Your task to perform on an android device: What's the weather going to be tomorrow? Image 0: 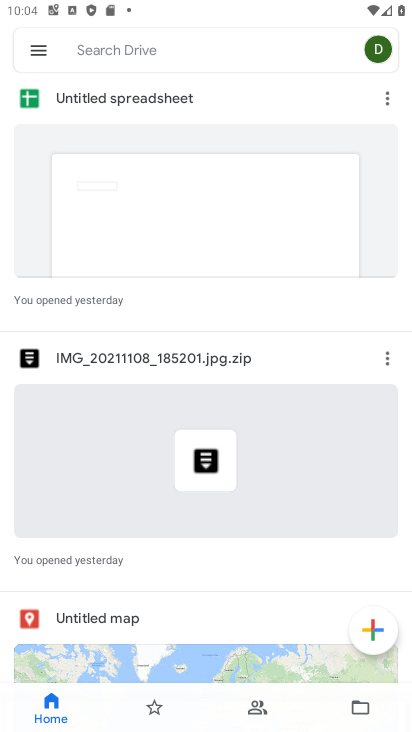
Step 0: press home button
Your task to perform on an android device: What's the weather going to be tomorrow? Image 1: 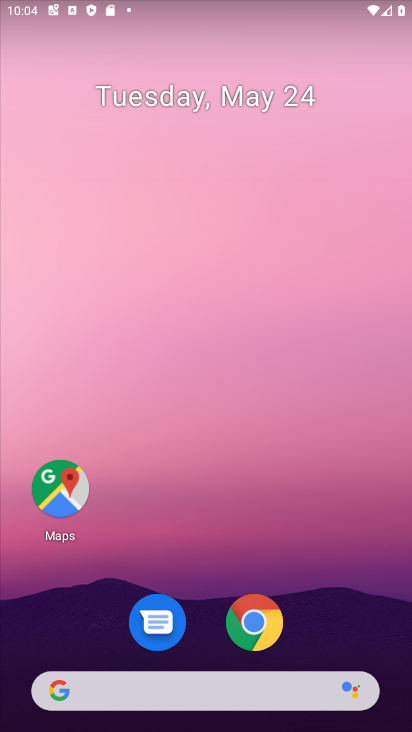
Step 1: drag from (283, 697) to (295, 137)
Your task to perform on an android device: What's the weather going to be tomorrow? Image 2: 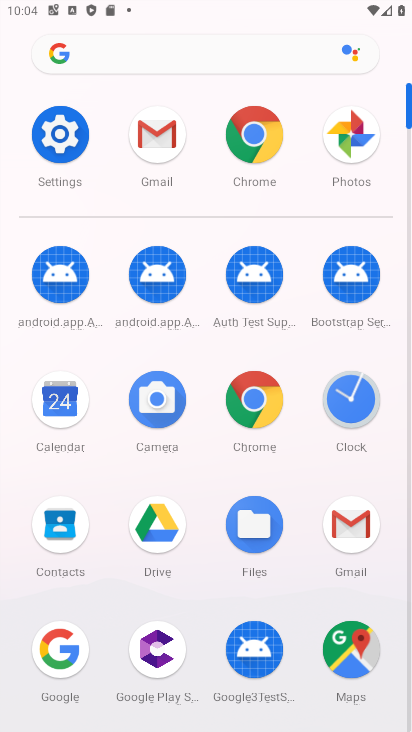
Step 2: click (176, 52)
Your task to perform on an android device: What's the weather going to be tomorrow? Image 3: 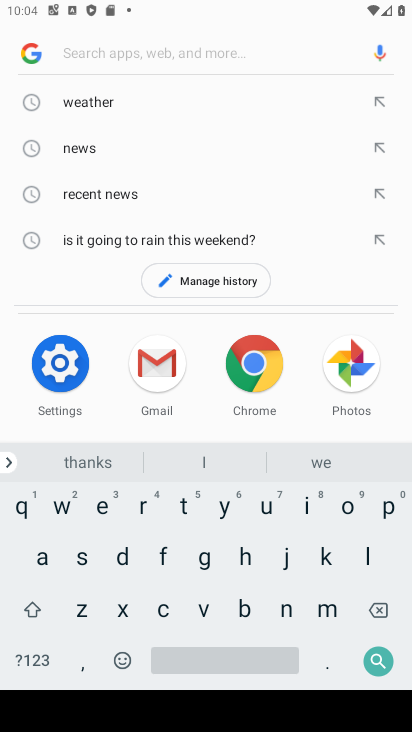
Step 3: click (127, 97)
Your task to perform on an android device: What's the weather going to be tomorrow? Image 4: 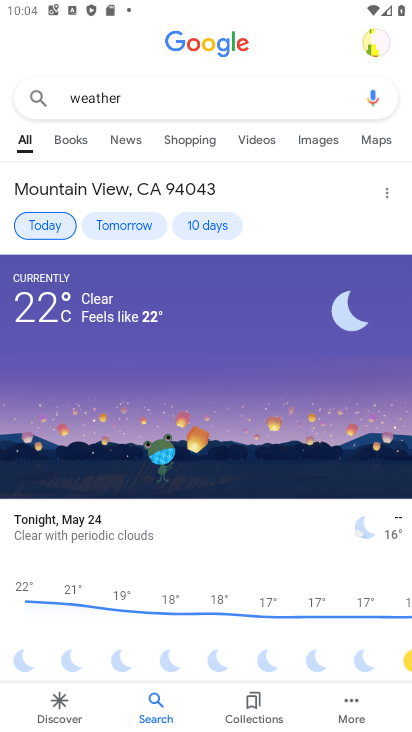
Step 4: click (104, 218)
Your task to perform on an android device: What's the weather going to be tomorrow? Image 5: 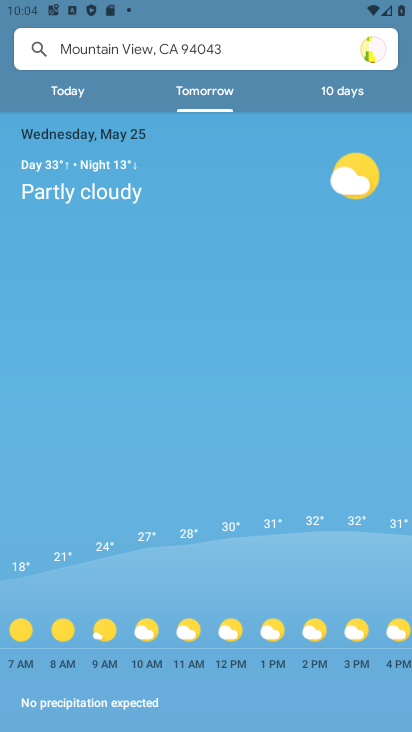
Step 5: task complete